Your task to perform on an android device: What's on my calendar tomorrow? Image 0: 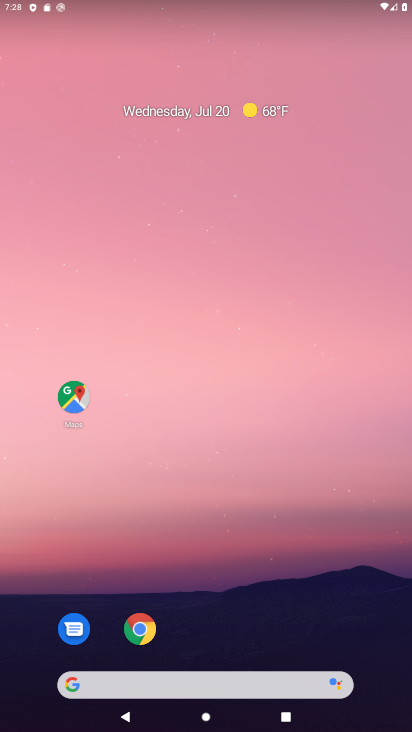
Step 0: drag from (343, 613) to (363, 62)
Your task to perform on an android device: What's on my calendar tomorrow? Image 1: 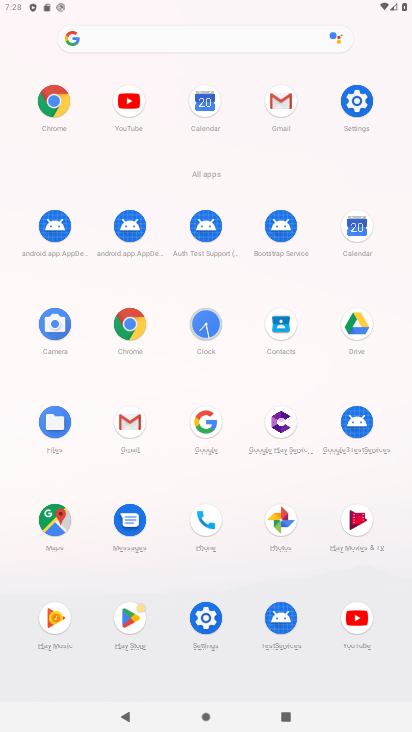
Step 1: click (354, 230)
Your task to perform on an android device: What's on my calendar tomorrow? Image 2: 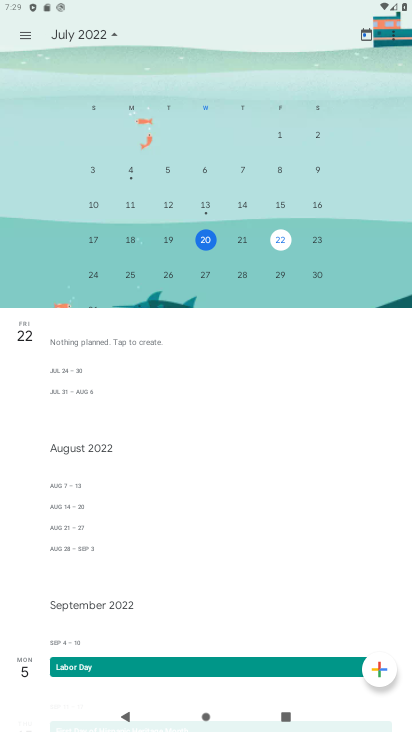
Step 2: task complete